Your task to perform on an android device: delete browsing data in the chrome app Image 0: 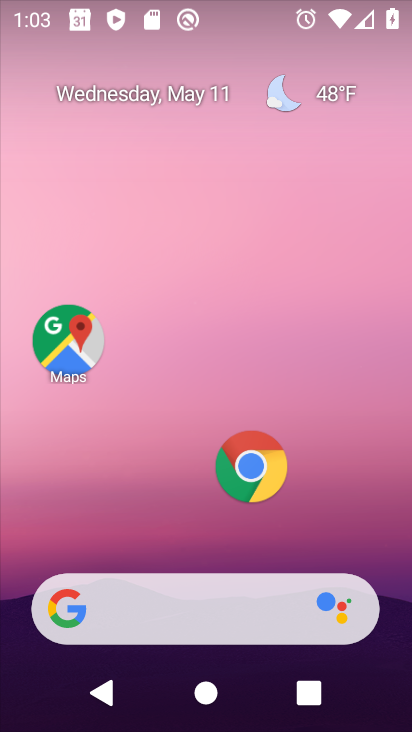
Step 0: click (250, 473)
Your task to perform on an android device: delete browsing data in the chrome app Image 1: 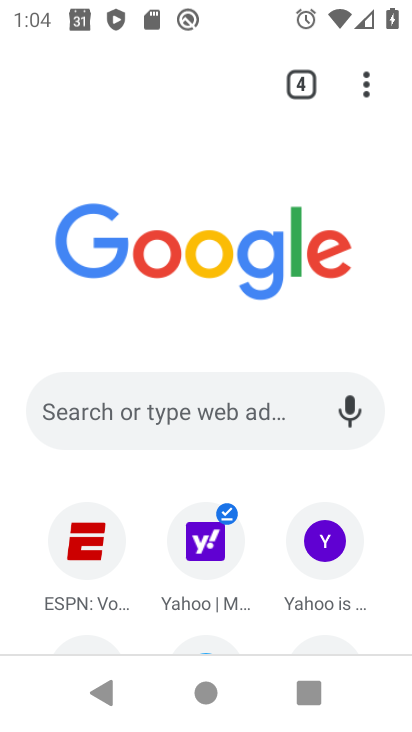
Step 1: drag from (361, 74) to (68, 471)
Your task to perform on an android device: delete browsing data in the chrome app Image 2: 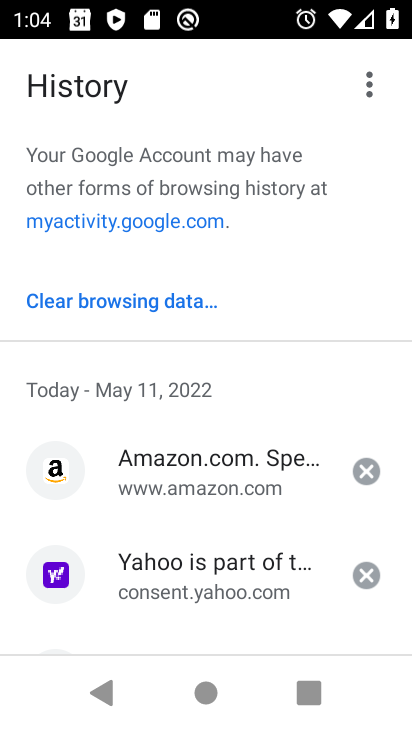
Step 2: click (102, 298)
Your task to perform on an android device: delete browsing data in the chrome app Image 3: 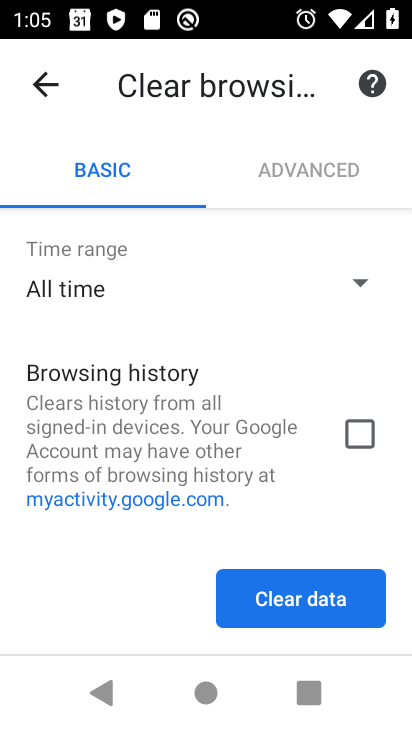
Step 3: click (298, 610)
Your task to perform on an android device: delete browsing data in the chrome app Image 4: 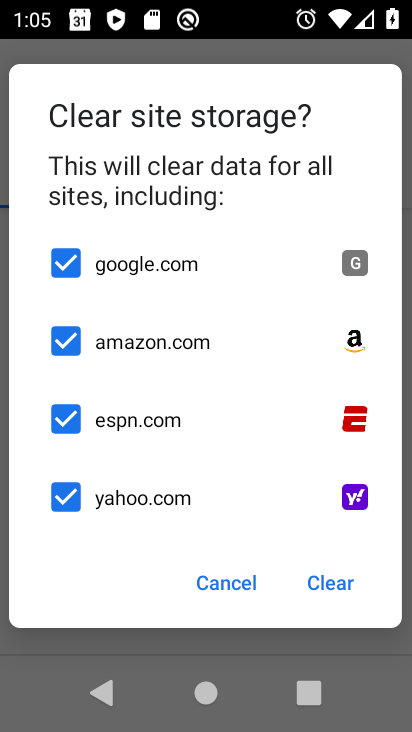
Step 4: click (335, 585)
Your task to perform on an android device: delete browsing data in the chrome app Image 5: 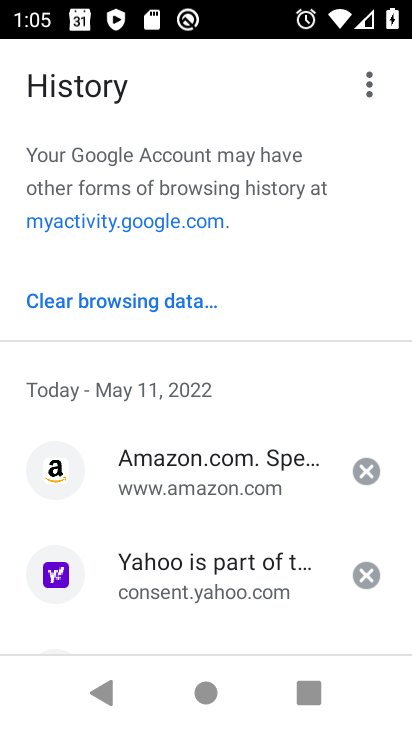
Step 5: task complete